Your task to perform on an android device: Open the Play Movies app and select the watchlist tab. Image 0: 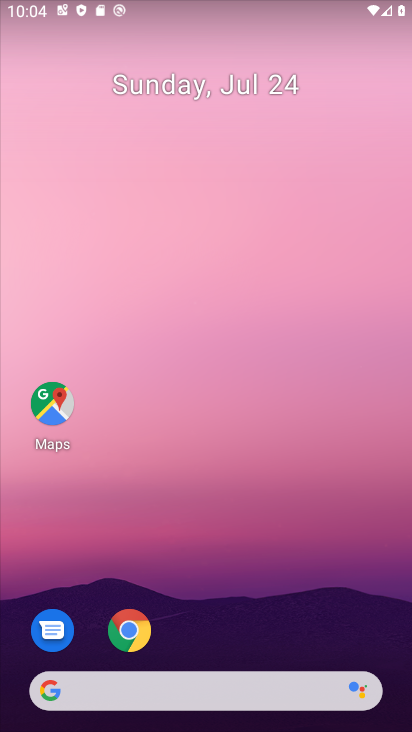
Step 0: drag from (216, 642) to (212, 86)
Your task to perform on an android device: Open the Play Movies app and select the watchlist tab. Image 1: 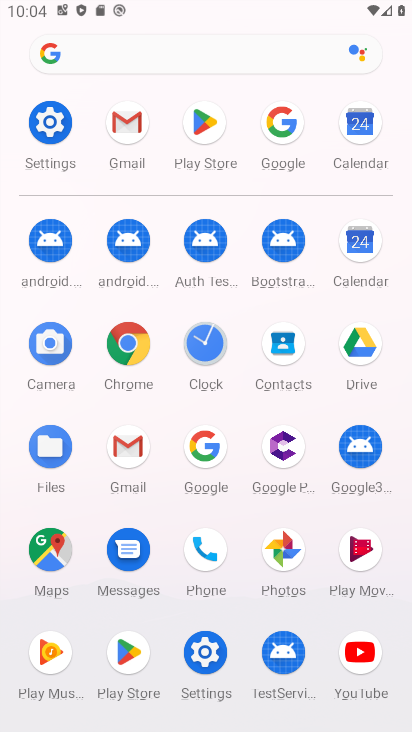
Step 1: click (349, 551)
Your task to perform on an android device: Open the Play Movies app and select the watchlist tab. Image 2: 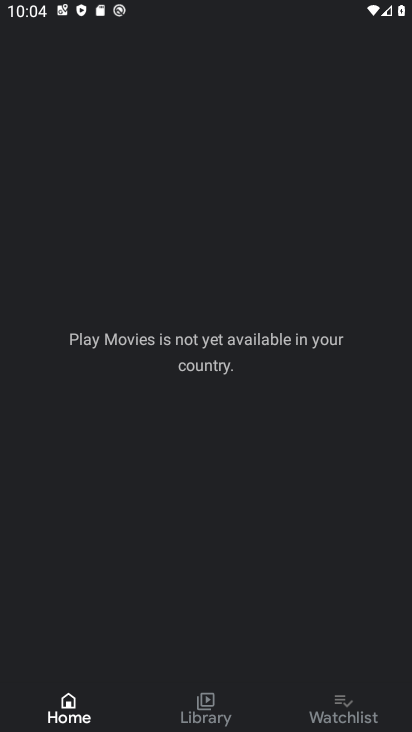
Step 2: click (353, 725)
Your task to perform on an android device: Open the Play Movies app and select the watchlist tab. Image 3: 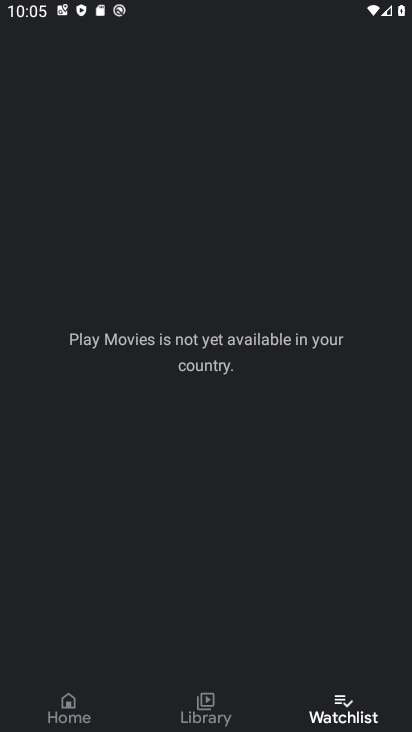
Step 3: task complete